Your task to perform on an android device: open chrome and create a bookmark for the current page Image 0: 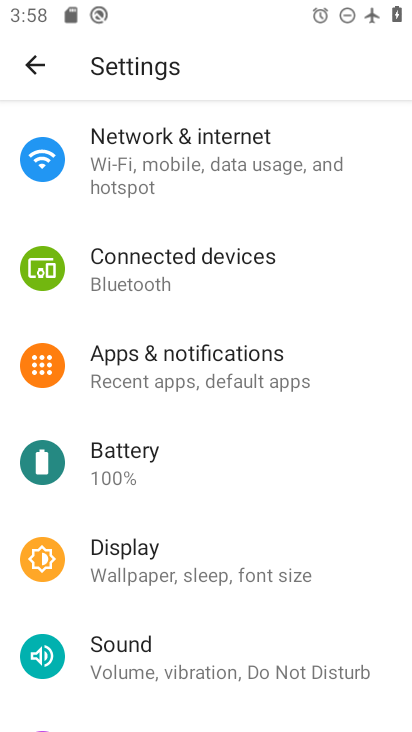
Step 0: press home button
Your task to perform on an android device: open chrome and create a bookmark for the current page Image 1: 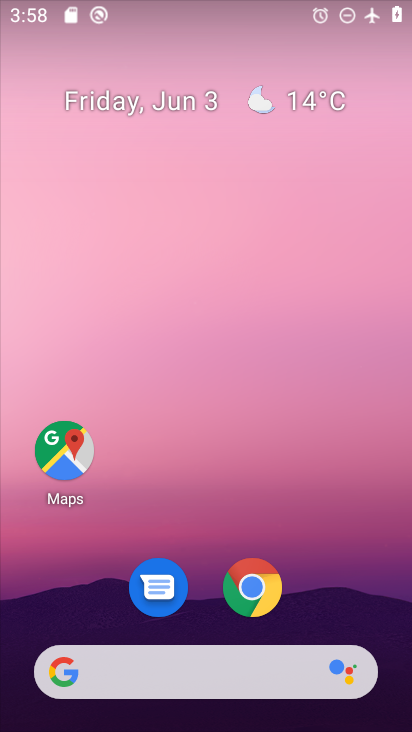
Step 1: click (248, 585)
Your task to perform on an android device: open chrome and create a bookmark for the current page Image 2: 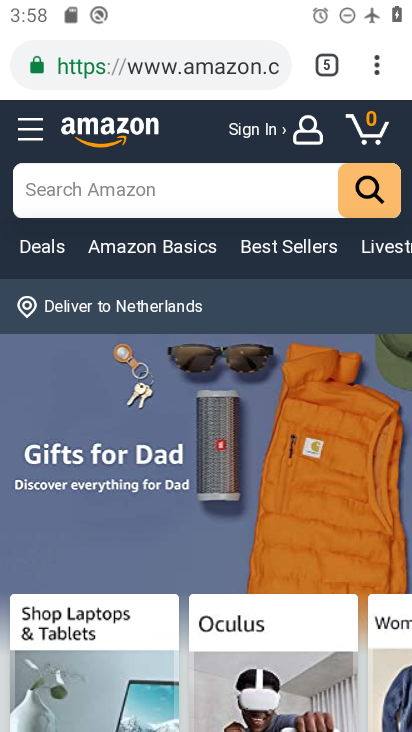
Step 2: click (378, 71)
Your task to perform on an android device: open chrome and create a bookmark for the current page Image 3: 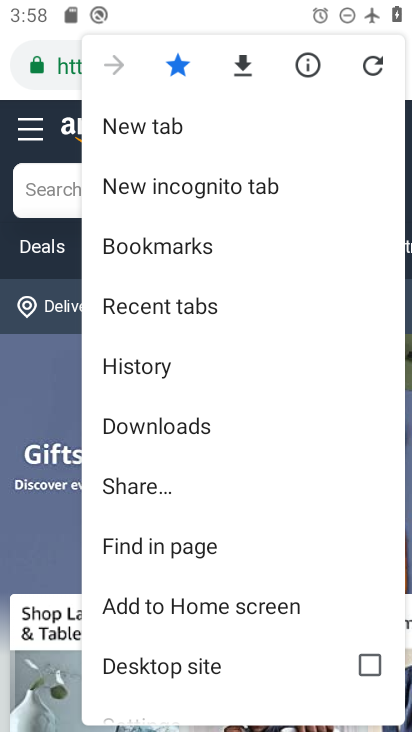
Step 3: task complete